Your task to perform on an android device: Open battery settings Image 0: 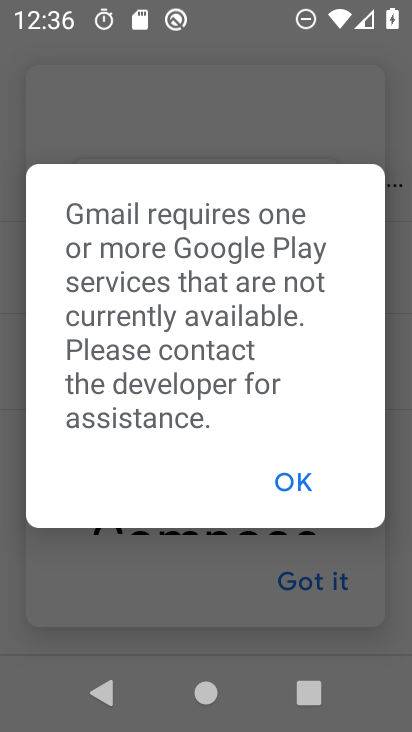
Step 0: press home button
Your task to perform on an android device: Open battery settings Image 1: 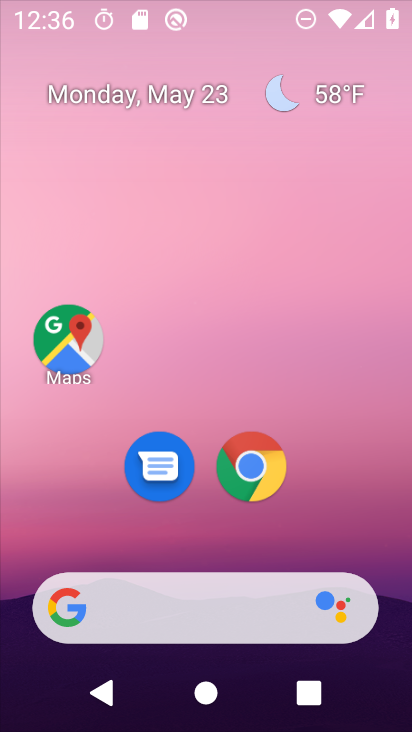
Step 1: drag from (238, 534) to (296, 71)
Your task to perform on an android device: Open battery settings Image 2: 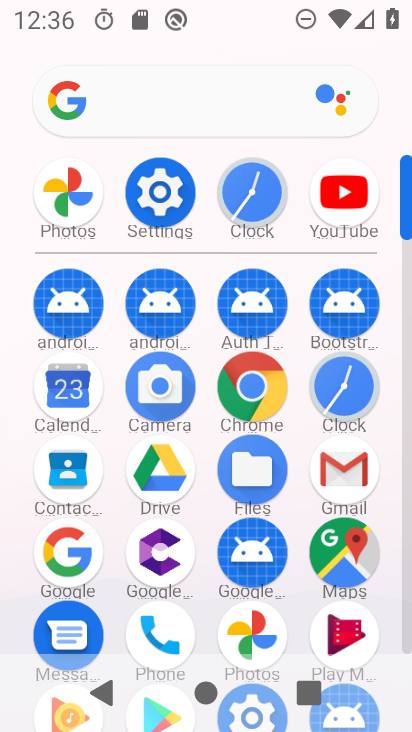
Step 2: click (152, 203)
Your task to perform on an android device: Open battery settings Image 3: 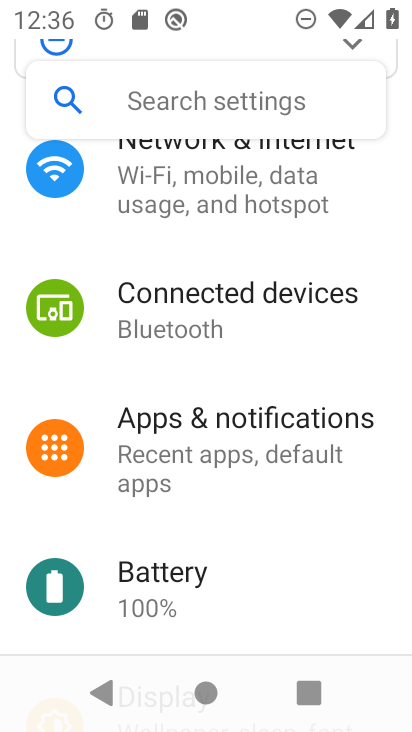
Step 3: click (172, 559)
Your task to perform on an android device: Open battery settings Image 4: 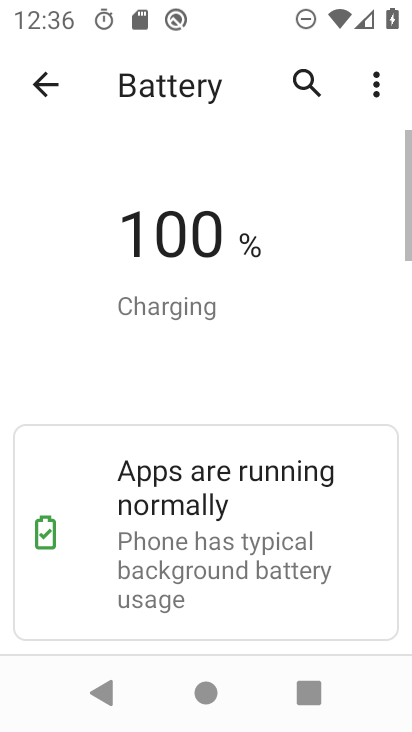
Step 4: click (371, 79)
Your task to perform on an android device: Open battery settings Image 5: 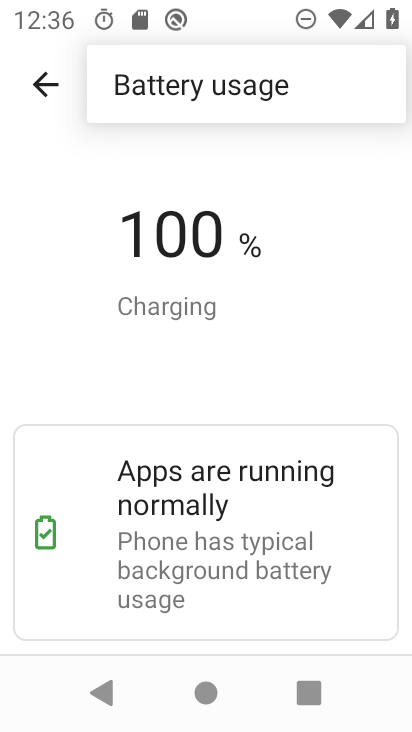
Step 5: click (178, 267)
Your task to perform on an android device: Open battery settings Image 6: 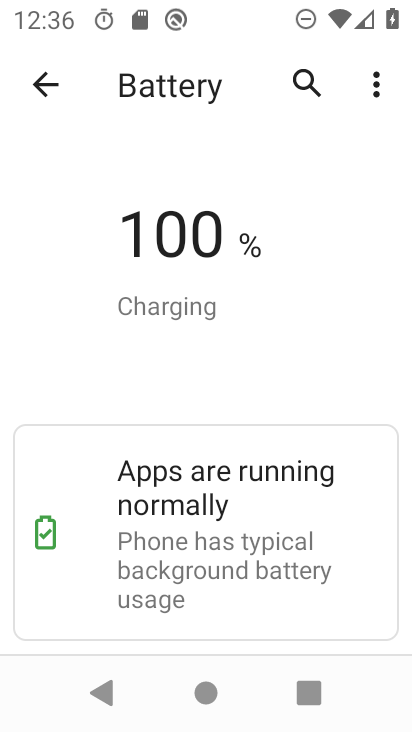
Step 6: task complete